Your task to perform on an android device: check storage Image 0: 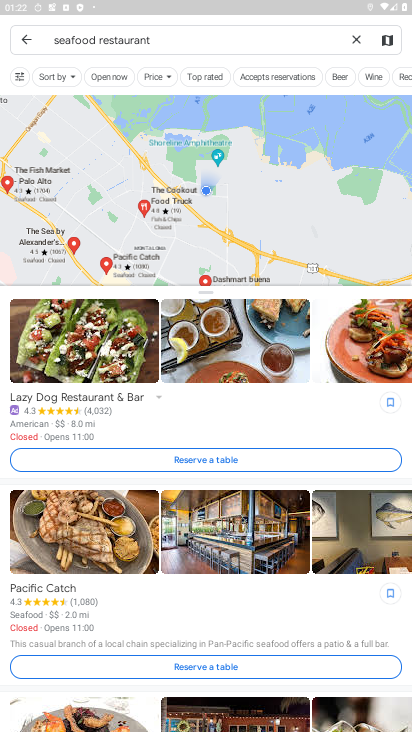
Step 0: press home button
Your task to perform on an android device: check storage Image 1: 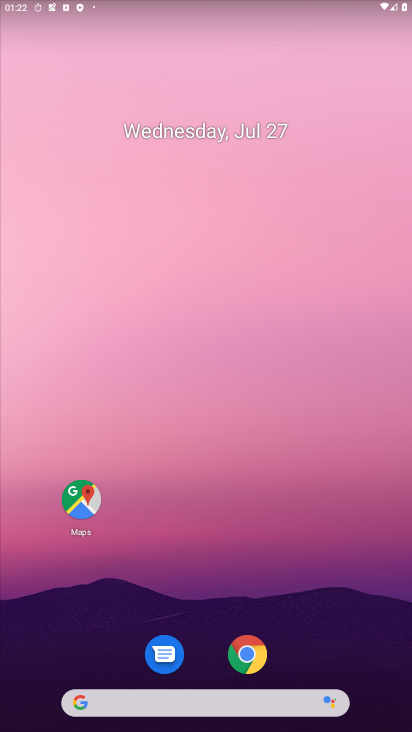
Step 1: drag from (289, 629) to (304, 380)
Your task to perform on an android device: check storage Image 2: 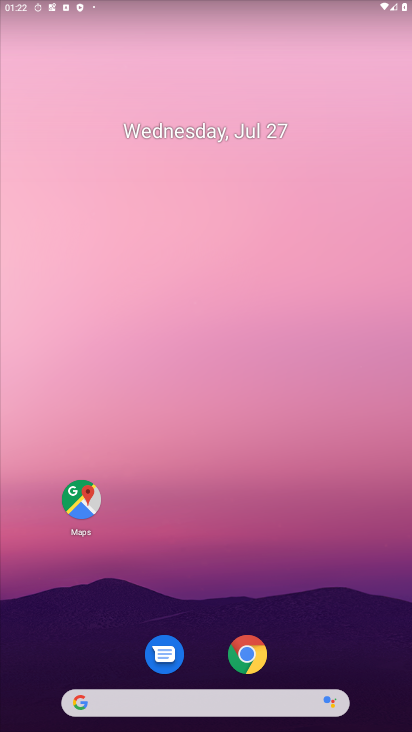
Step 2: drag from (288, 671) to (308, 196)
Your task to perform on an android device: check storage Image 3: 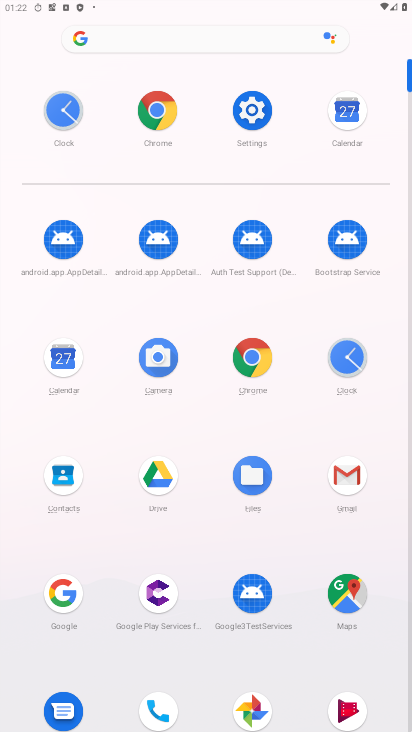
Step 3: click (260, 117)
Your task to perform on an android device: check storage Image 4: 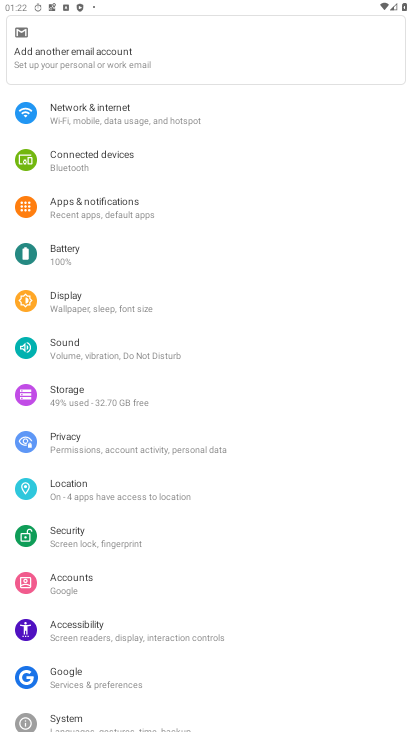
Step 4: click (132, 387)
Your task to perform on an android device: check storage Image 5: 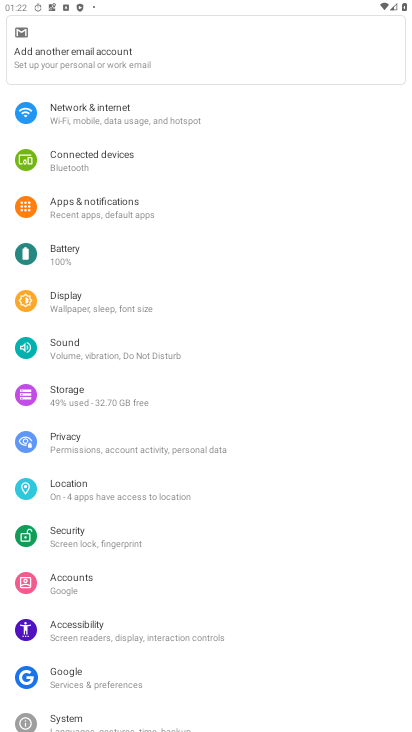
Step 5: click (125, 394)
Your task to perform on an android device: check storage Image 6: 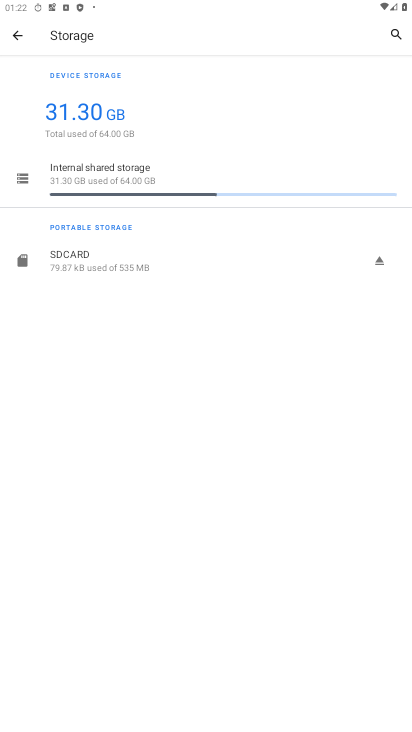
Step 6: task complete